Your task to perform on an android device: delete location history Image 0: 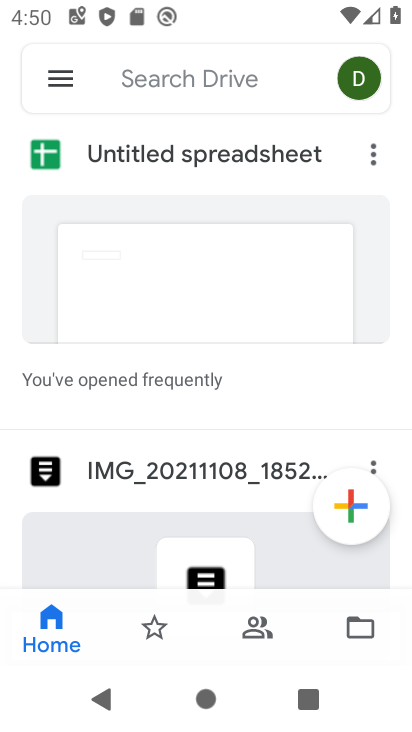
Step 0: press home button
Your task to perform on an android device: delete location history Image 1: 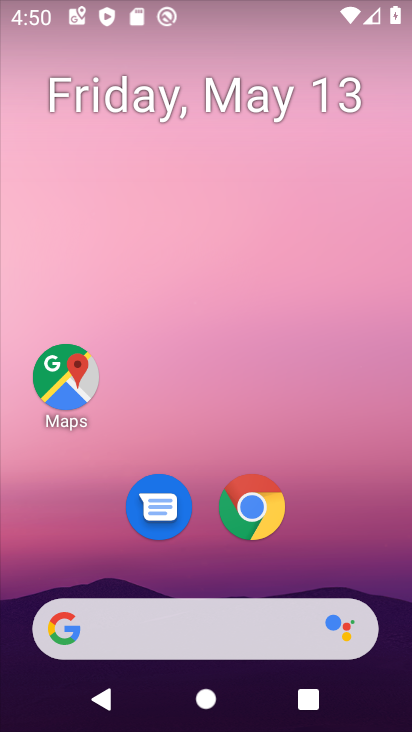
Step 1: drag from (326, 527) to (238, 41)
Your task to perform on an android device: delete location history Image 2: 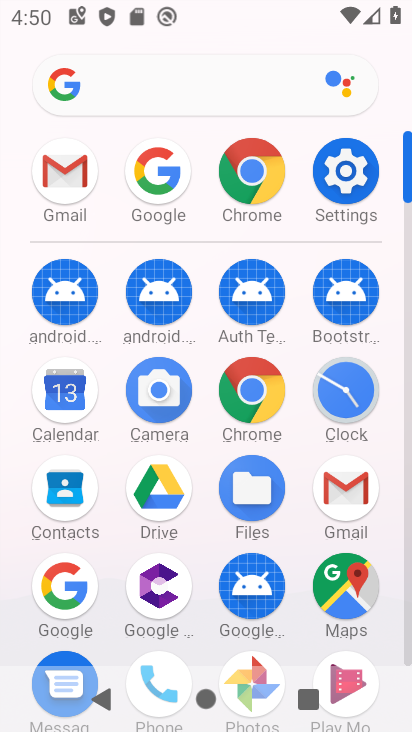
Step 2: click (364, 176)
Your task to perform on an android device: delete location history Image 3: 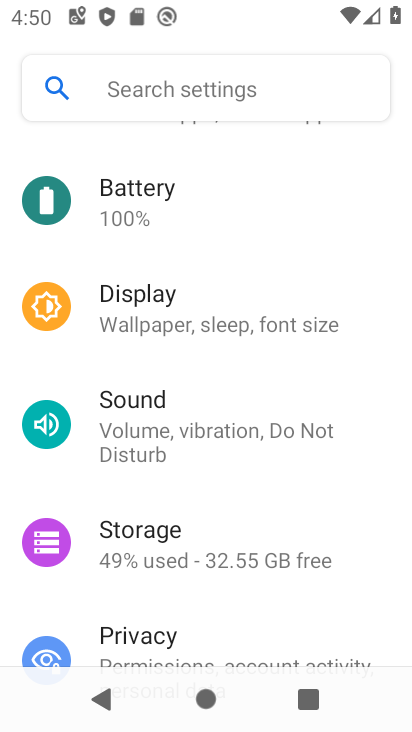
Step 3: drag from (197, 553) to (171, 192)
Your task to perform on an android device: delete location history Image 4: 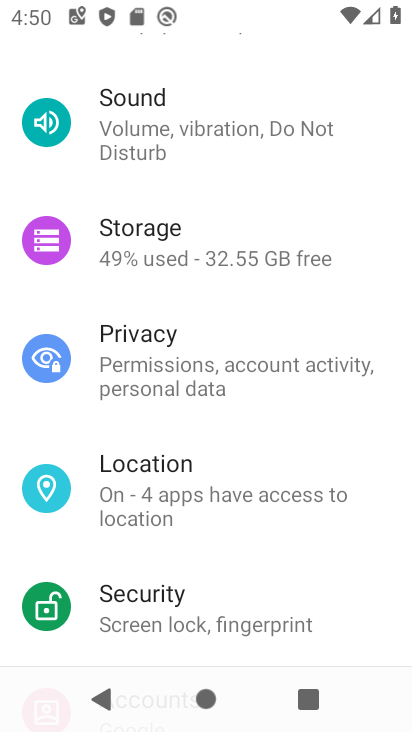
Step 4: click (189, 487)
Your task to perform on an android device: delete location history Image 5: 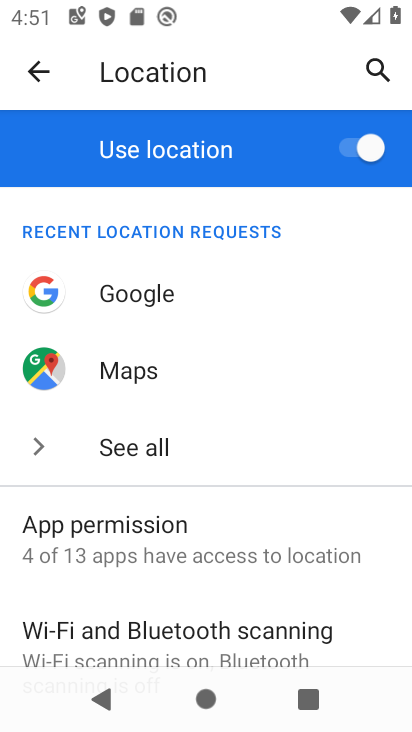
Step 5: drag from (248, 579) to (253, 185)
Your task to perform on an android device: delete location history Image 6: 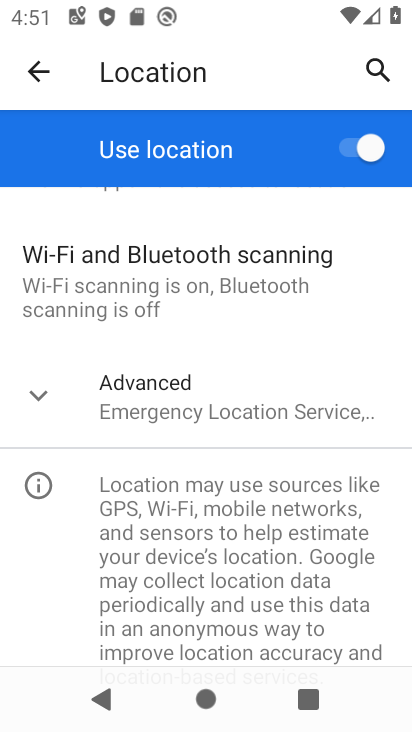
Step 6: click (198, 380)
Your task to perform on an android device: delete location history Image 7: 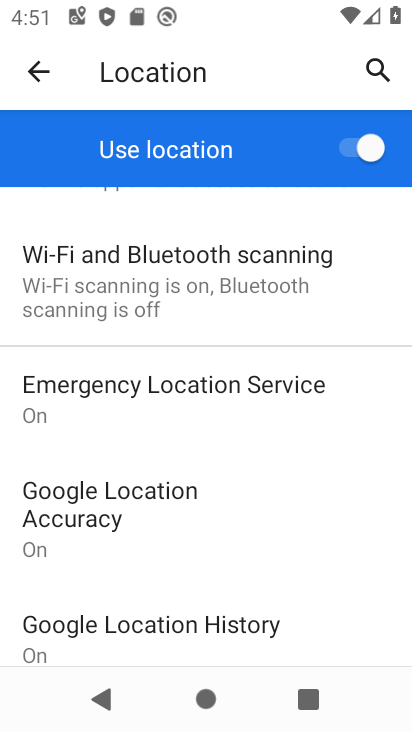
Step 7: click (204, 615)
Your task to perform on an android device: delete location history Image 8: 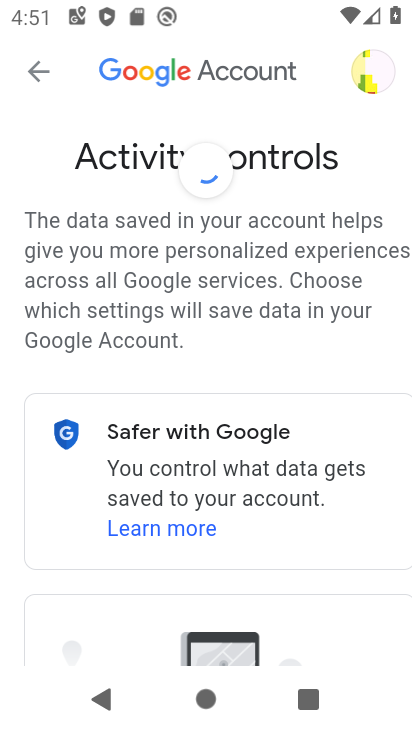
Step 8: drag from (242, 370) to (243, 93)
Your task to perform on an android device: delete location history Image 9: 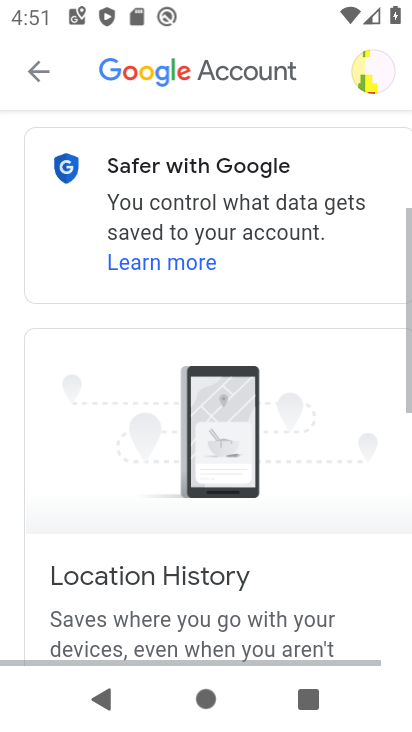
Step 9: drag from (209, 373) to (196, 171)
Your task to perform on an android device: delete location history Image 10: 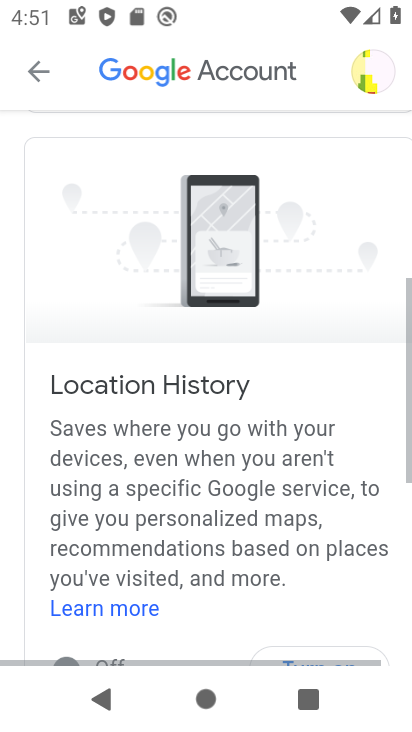
Step 10: drag from (143, 476) to (143, 175)
Your task to perform on an android device: delete location history Image 11: 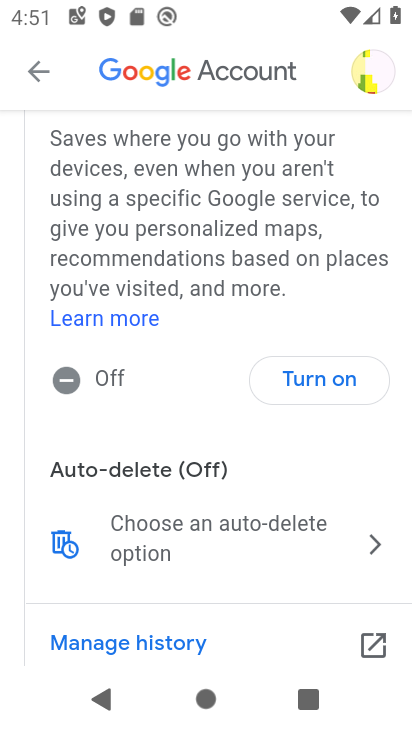
Step 11: click (65, 542)
Your task to perform on an android device: delete location history Image 12: 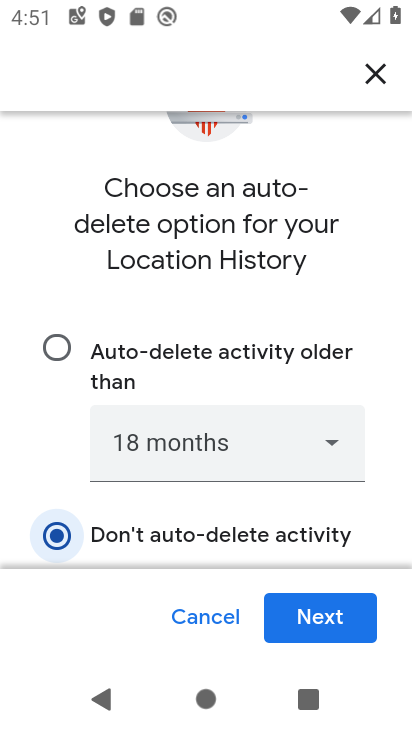
Step 12: click (325, 617)
Your task to perform on an android device: delete location history Image 13: 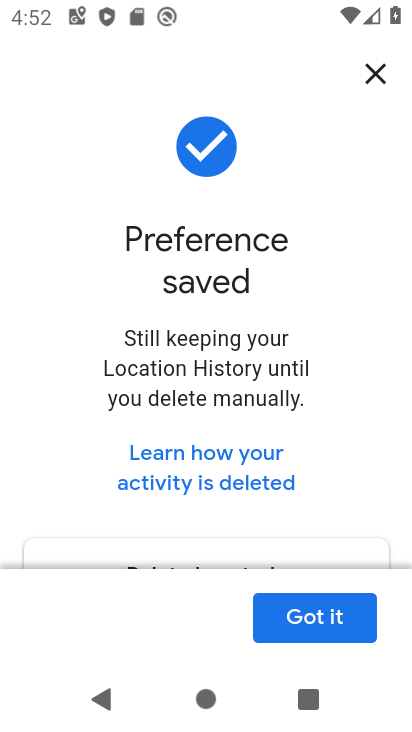
Step 13: click (304, 612)
Your task to perform on an android device: delete location history Image 14: 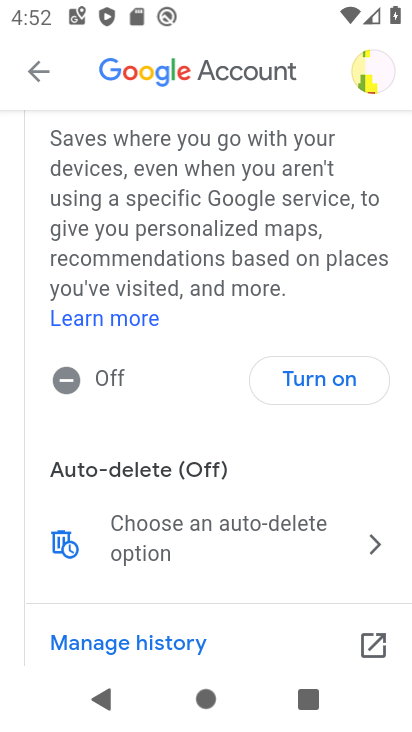
Step 14: task complete